Your task to perform on an android device: see sites visited before in the chrome app Image 0: 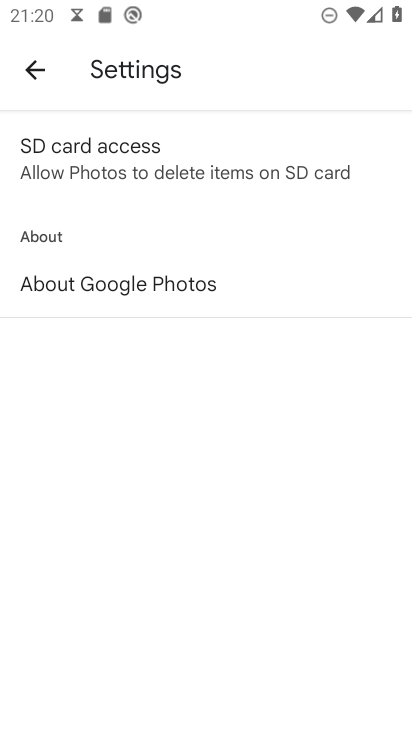
Step 0: press home button
Your task to perform on an android device: see sites visited before in the chrome app Image 1: 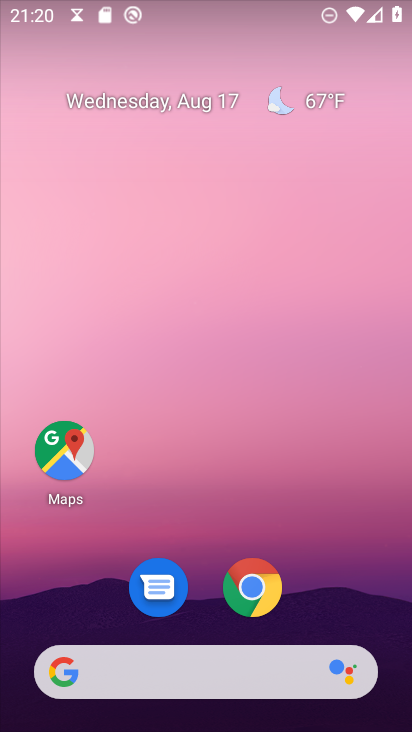
Step 1: click (257, 600)
Your task to perform on an android device: see sites visited before in the chrome app Image 2: 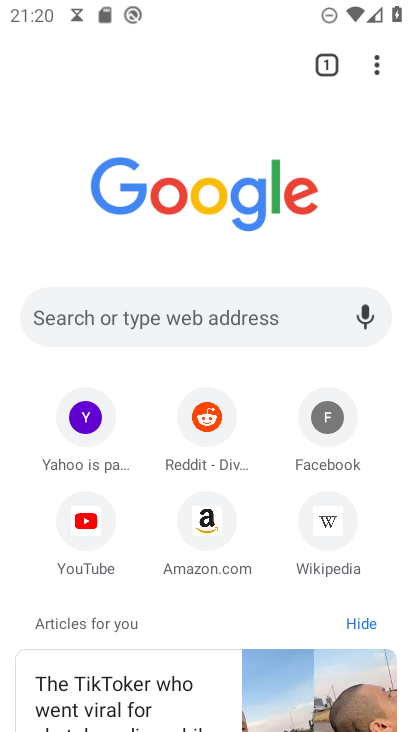
Step 2: click (384, 68)
Your task to perform on an android device: see sites visited before in the chrome app Image 3: 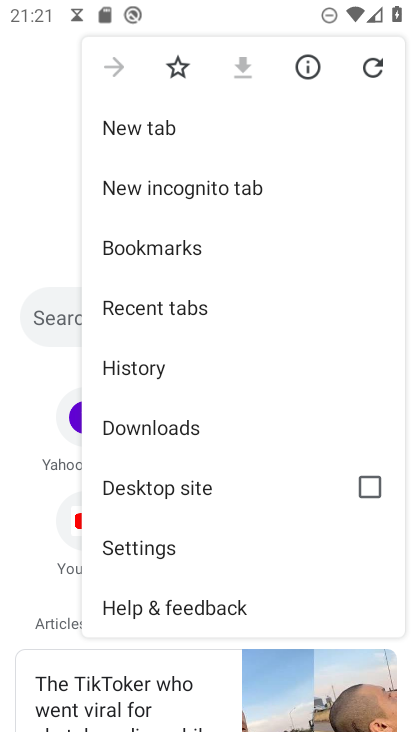
Step 3: click (159, 547)
Your task to perform on an android device: see sites visited before in the chrome app Image 4: 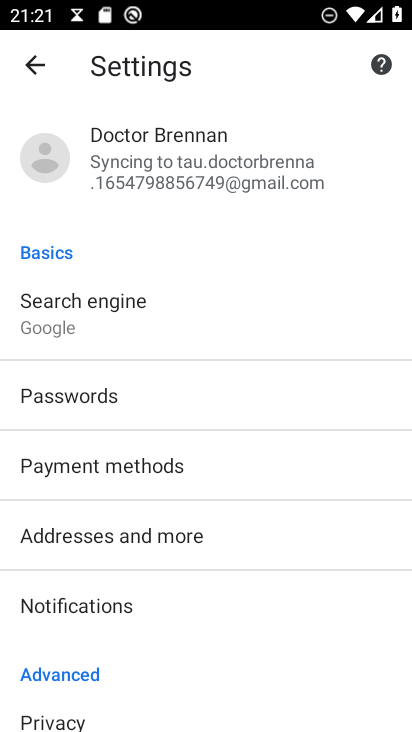
Step 4: drag from (347, 665) to (341, 233)
Your task to perform on an android device: see sites visited before in the chrome app Image 5: 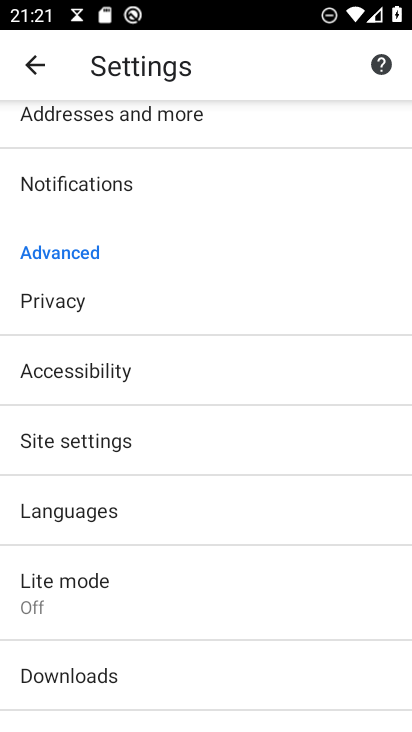
Step 5: click (73, 444)
Your task to perform on an android device: see sites visited before in the chrome app Image 6: 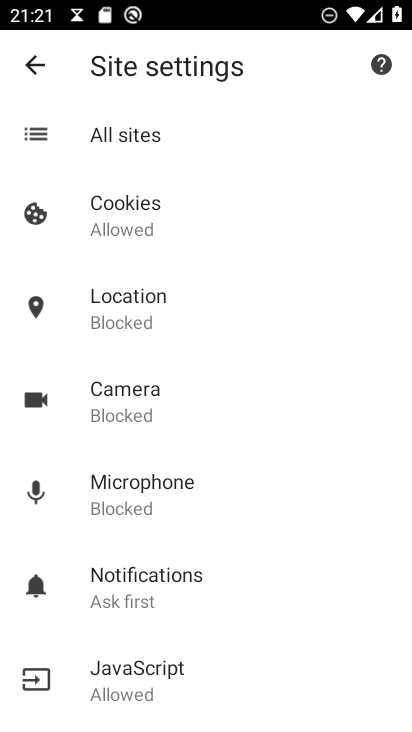
Step 6: task complete